Your task to perform on an android device: set default search engine in the chrome app Image 0: 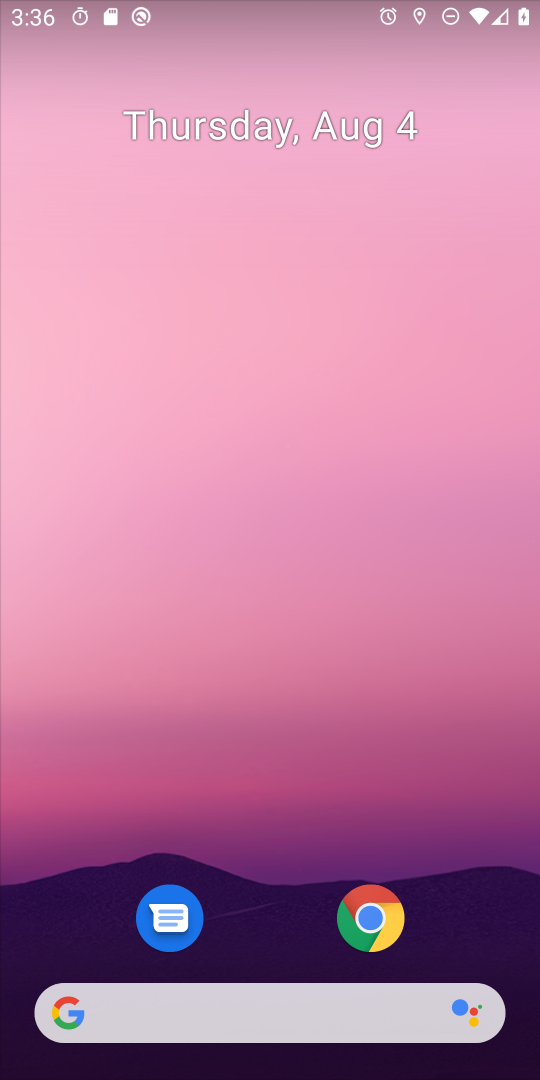
Step 0: click (366, 923)
Your task to perform on an android device: set default search engine in the chrome app Image 1: 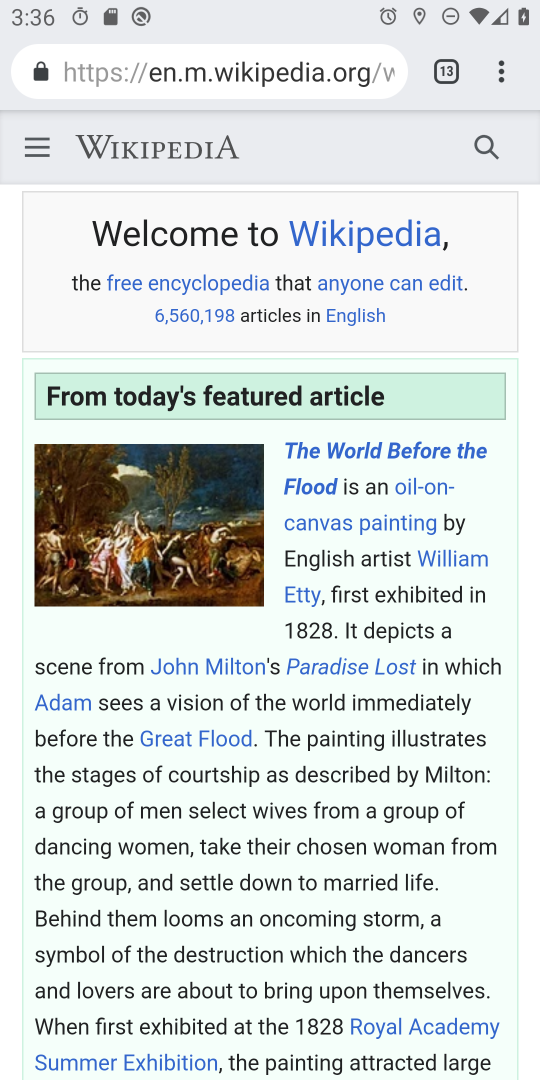
Step 1: click (509, 58)
Your task to perform on an android device: set default search engine in the chrome app Image 2: 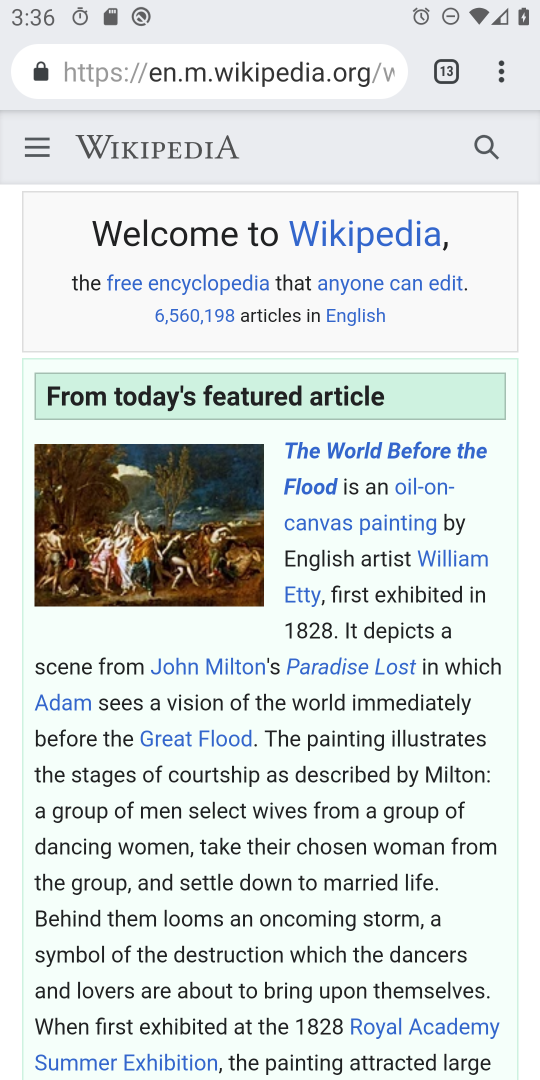
Step 2: drag from (491, 82) to (288, 865)
Your task to perform on an android device: set default search engine in the chrome app Image 3: 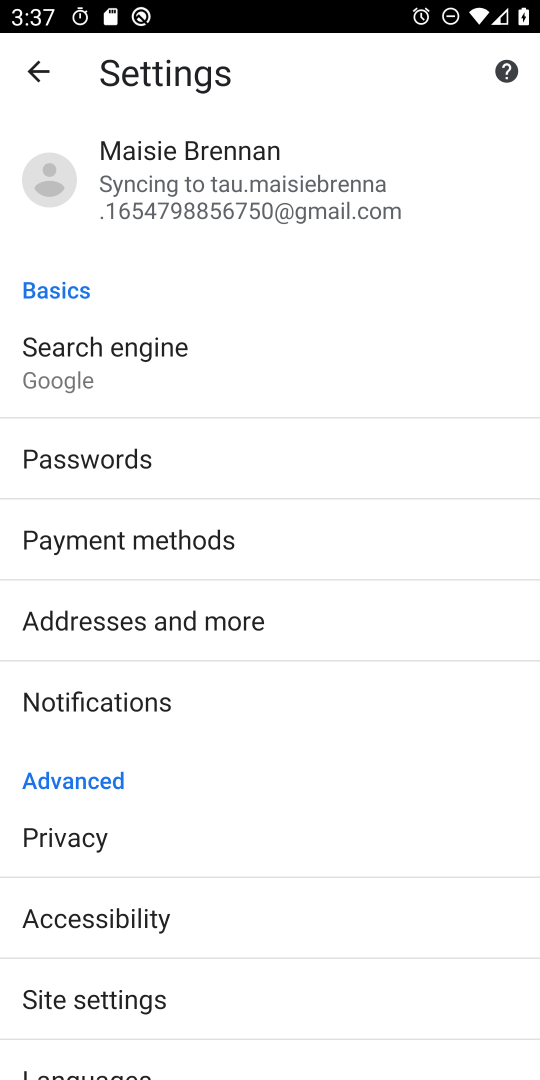
Step 3: click (182, 364)
Your task to perform on an android device: set default search engine in the chrome app Image 4: 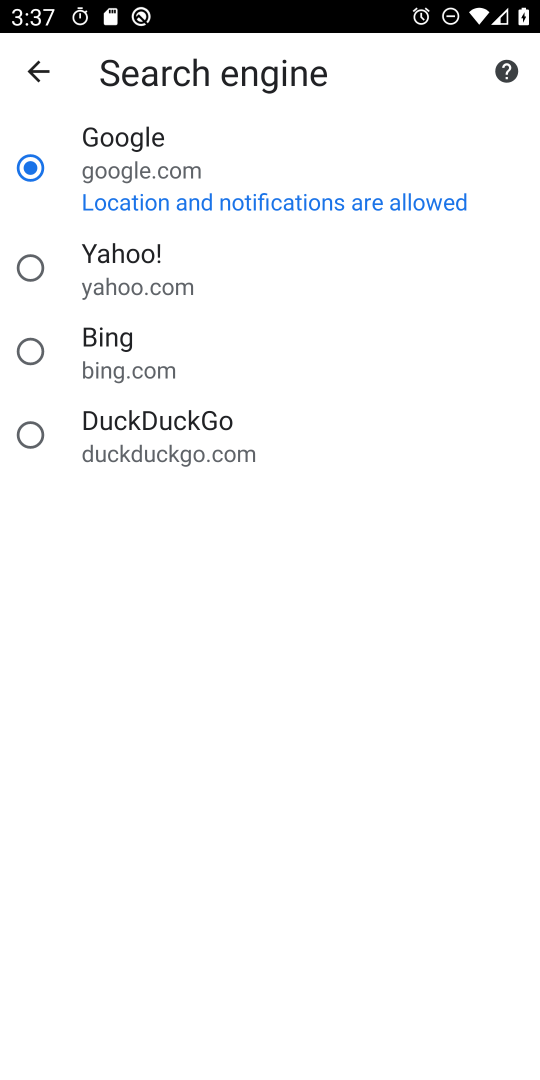
Step 4: task complete